Your task to perform on an android device: Open Google Image 0: 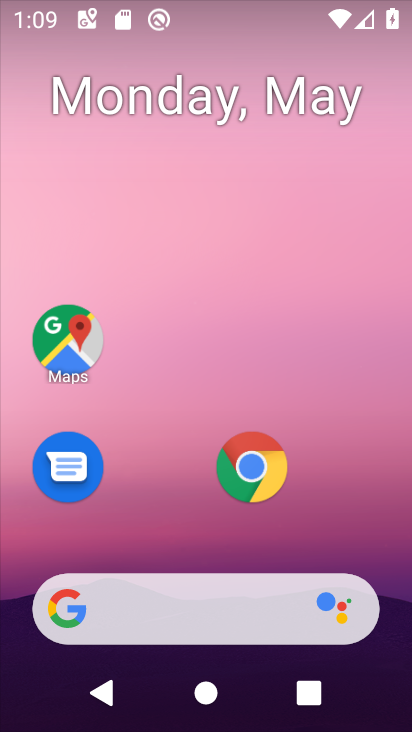
Step 0: drag from (216, 503) to (15, 282)
Your task to perform on an android device: Open Google Image 1: 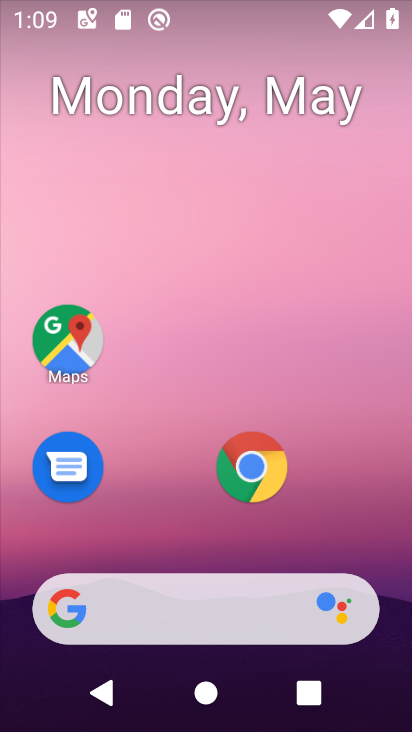
Step 1: drag from (200, 528) to (247, 82)
Your task to perform on an android device: Open Google Image 2: 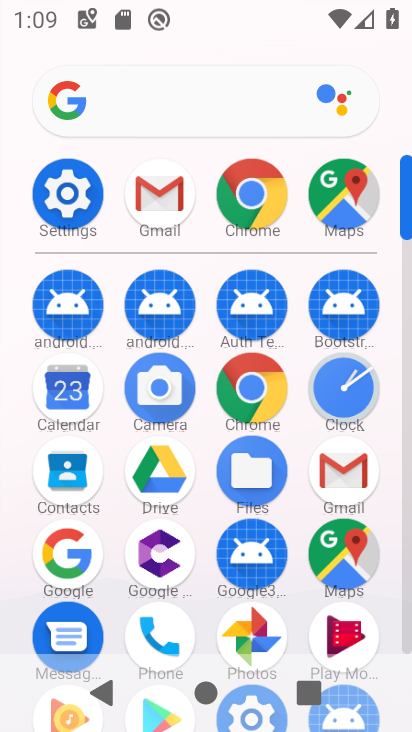
Step 2: click (67, 551)
Your task to perform on an android device: Open Google Image 3: 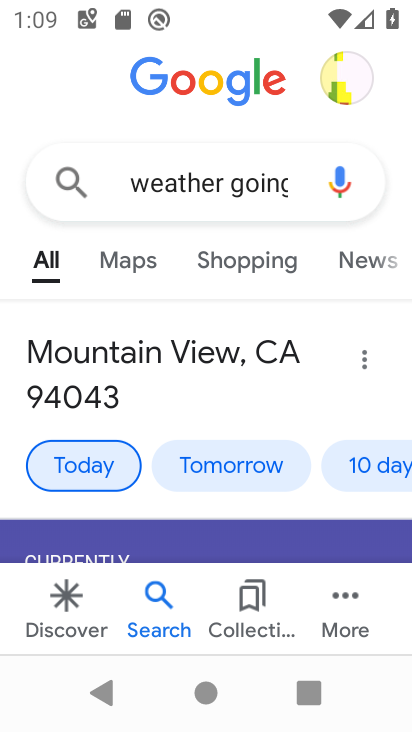
Step 3: task complete